Your task to perform on an android device: check data usage Image 0: 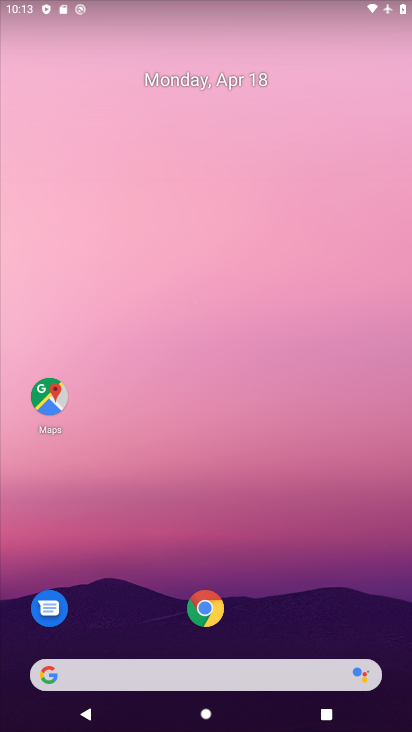
Step 0: drag from (294, 607) to (337, 115)
Your task to perform on an android device: check data usage Image 1: 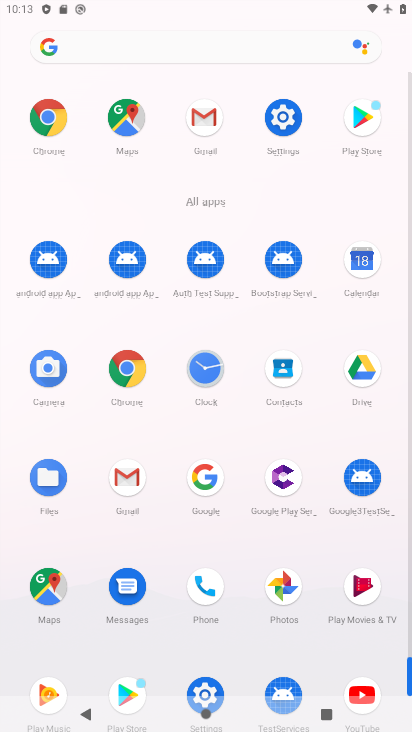
Step 1: click (281, 113)
Your task to perform on an android device: check data usage Image 2: 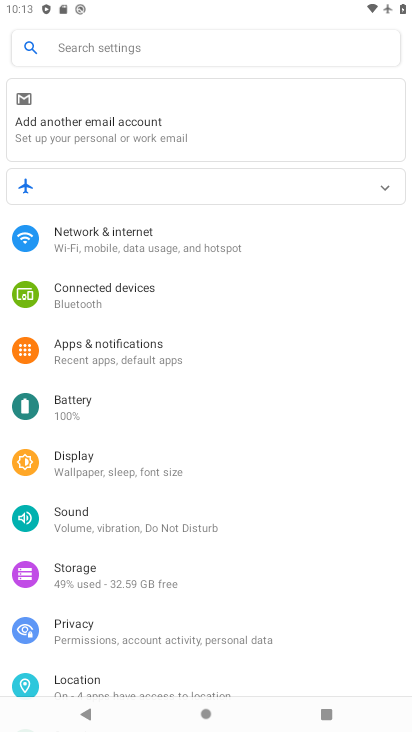
Step 2: click (161, 249)
Your task to perform on an android device: check data usage Image 3: 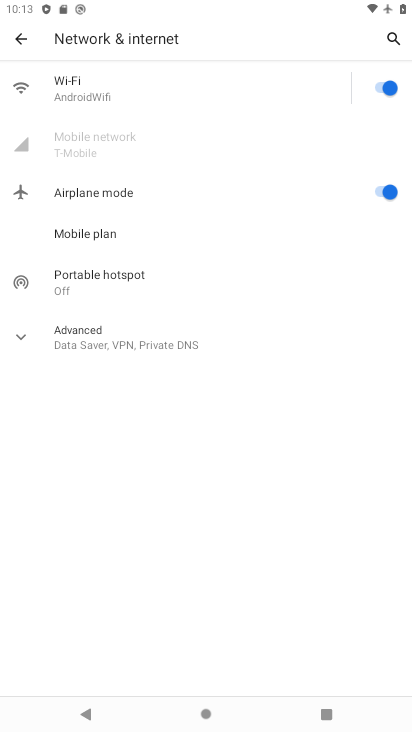
Step 3: click (395, 37)
Your task to perform on an android device: check data usage Image 4: 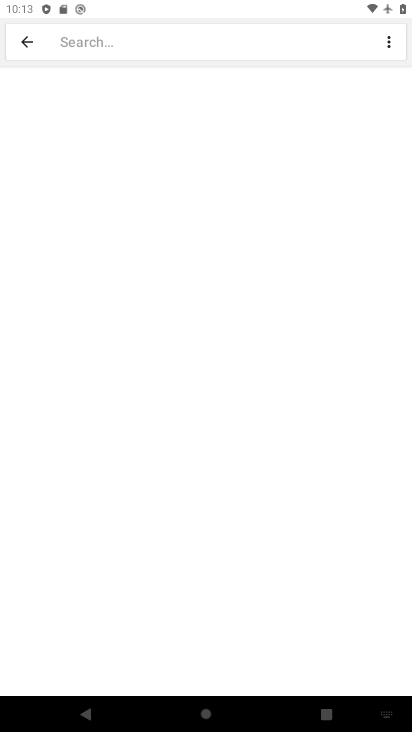
Step 4: click (177, 41)
Your task to perform on an android device: check data usage Image 5: 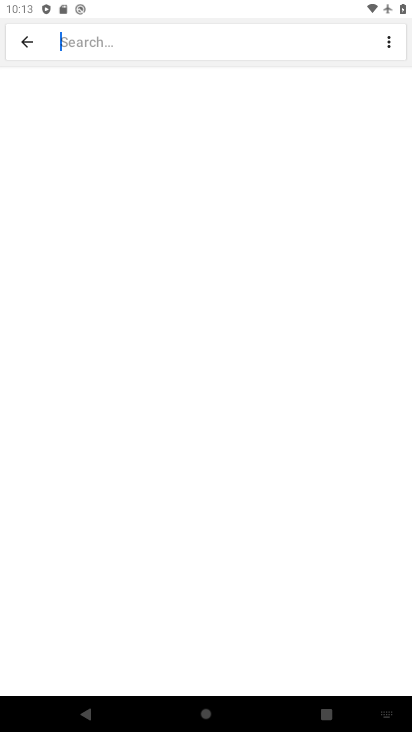
Step 5: type "data usage"
Your task to perform on an android device: check data usage Image 6: 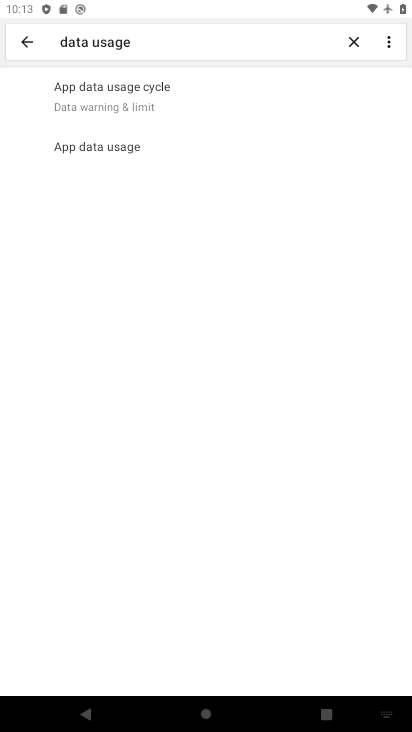
Step 6: click (144, 151)
Your task to perform on an android device: check data usage Image 7: 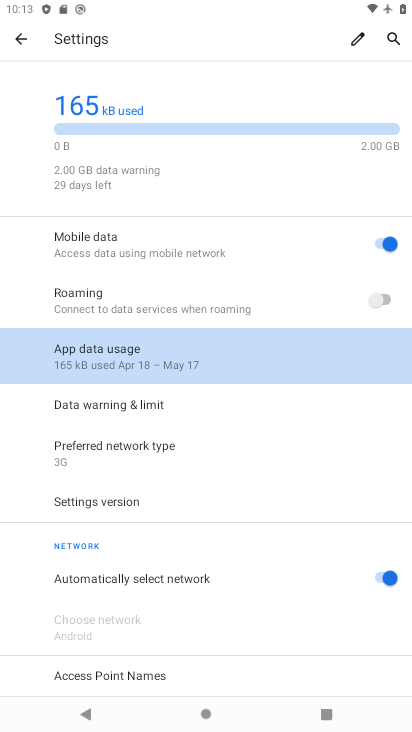
Step 7: click (146, 351)
Your task to perform on an android device: check data usage Image 8: 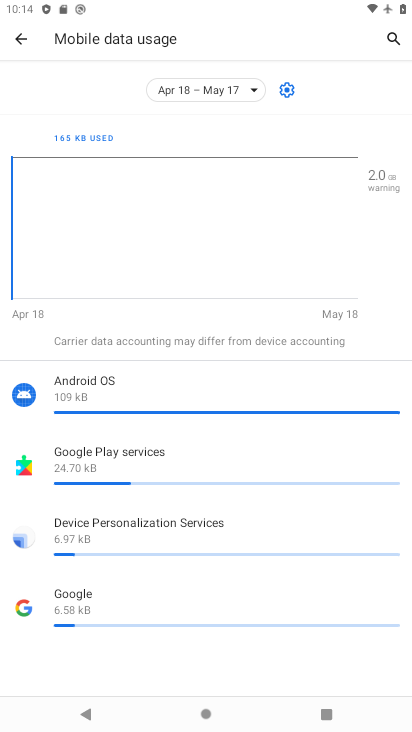
Step 8: task complete